Your task to perform on an android device: turn on sleep mode Image 0: 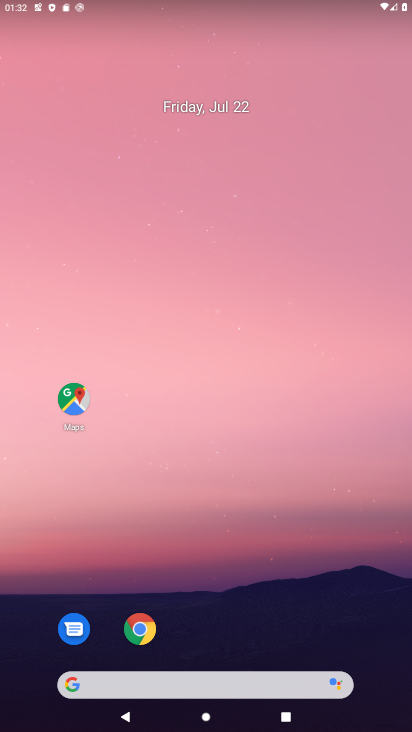
Step 0: drag from (140, 485) to (263, 176)
Your task to perform on an android device: turn on sleep mode Image 1: 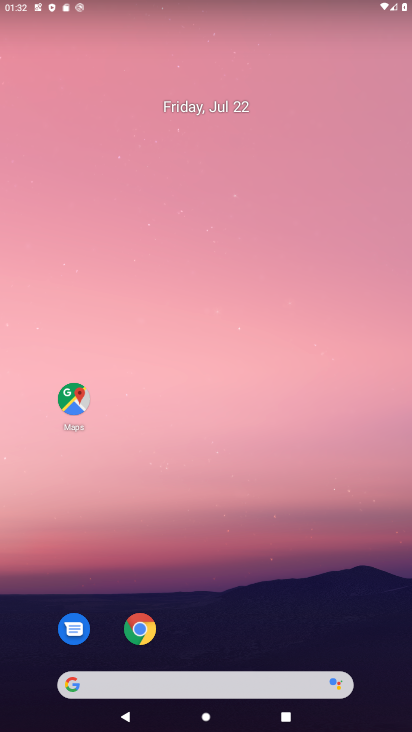
Step 1: drag from (97, 531) to (357, 69)
Your task to perform on an android device: turn on sleep mode Image 2: 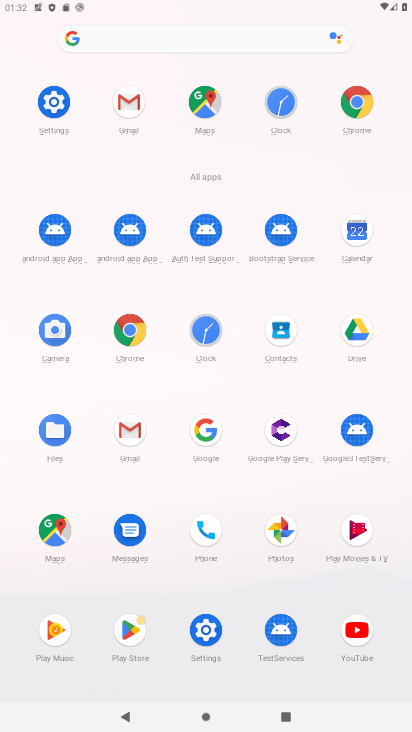
Step 2: click (68, 111)
Your task to perform on an android device: turn on sleep mode Image 3: 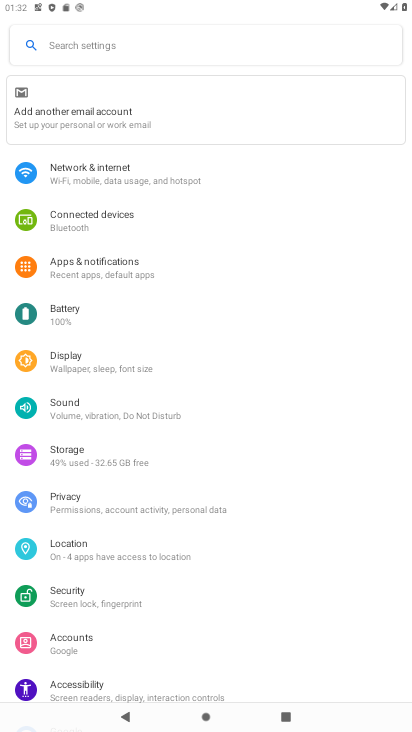
Step 3: task complete